Your task to perform on an android device: Find coffee shops on Maps Image 0: 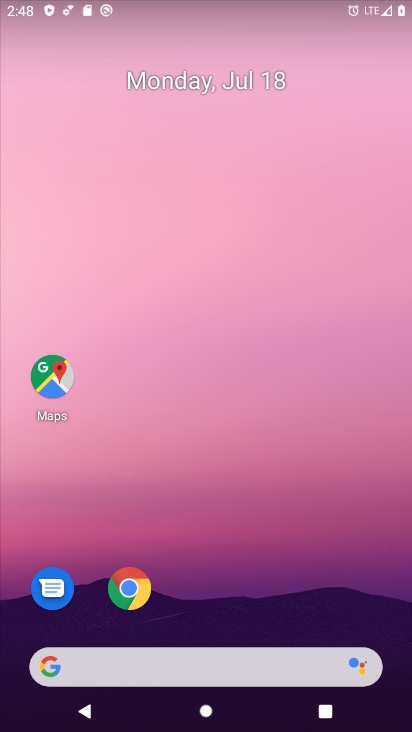
Step 0: click (51, 377)
Your task to perform on an android device: Find coffee shops on Maps Image 1: 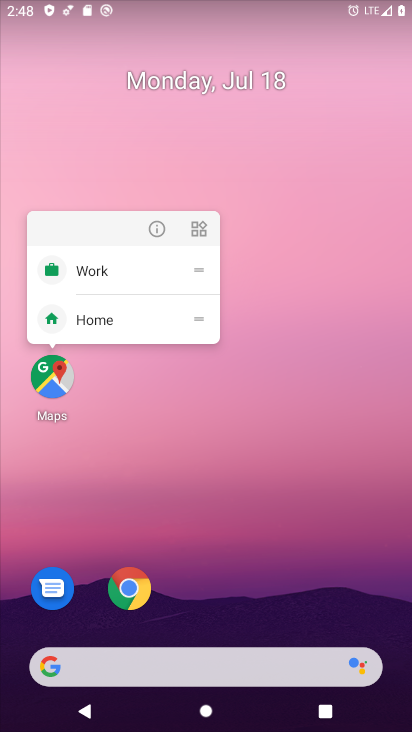
Step 1: click (39, 389)
Your task to perform on an android device: Find coffee shops on Maps Image 2: 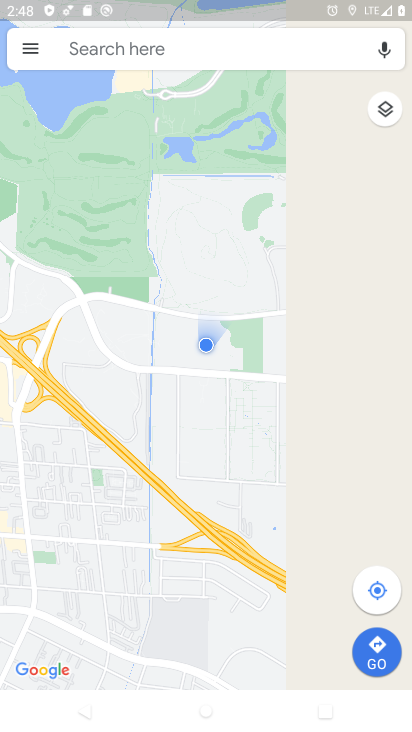
Step 2: click (195, 48)
Your task to perform on an android device: Find coffee shops on Maps Image 3: 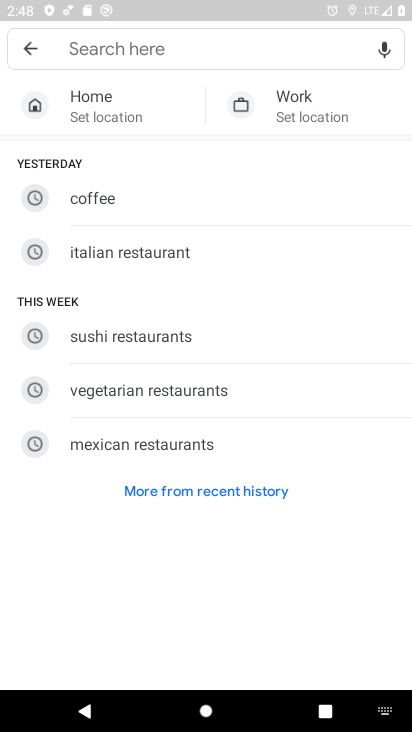
Step 3: type "coffee shops"
Your task to perform on an android device: Find coffee shops on Maps Image 4: 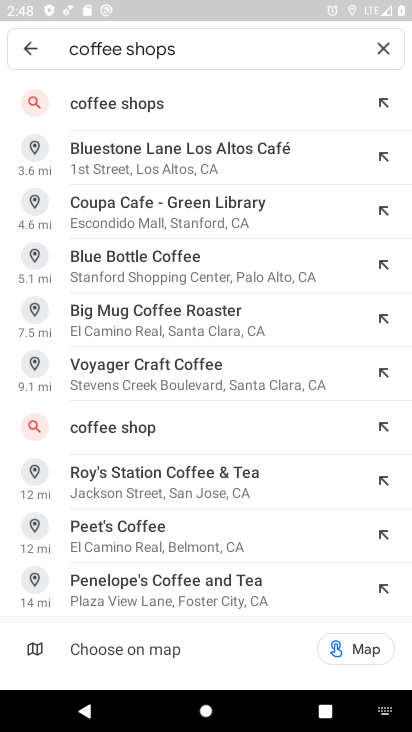
Step 4: click (82, 96)
Your task to perform on an android device: Find coffee shops on Maps Image 5: 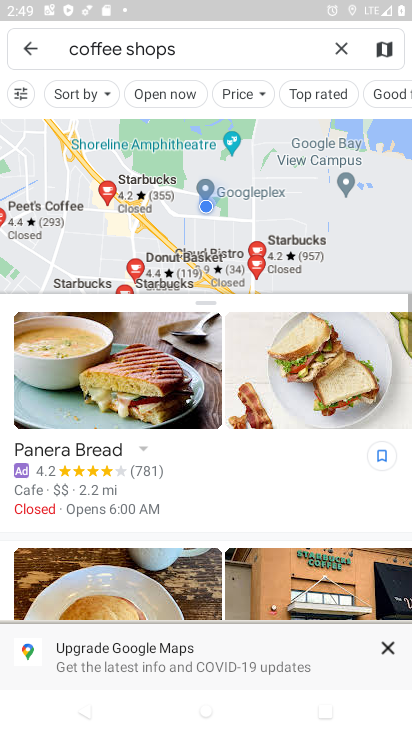
Step 5: task complete